Your task to perform on an android device: set default search engine in the chrome app Image 0: 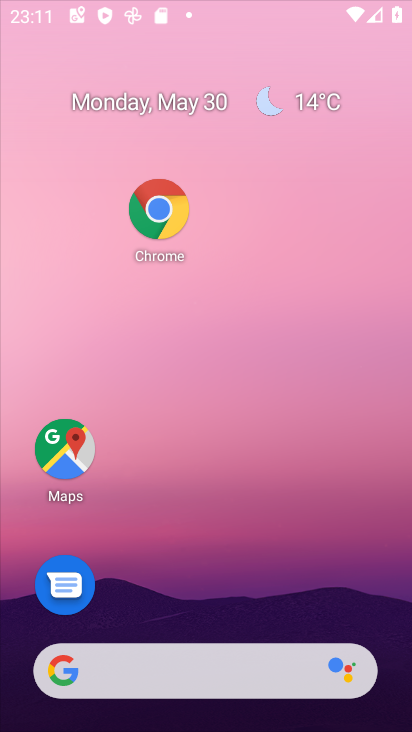
Step 0: drag from (201, 608) to (404, 96)
Your task to perform on an android device: set default search engine in the chrome app Image 1: 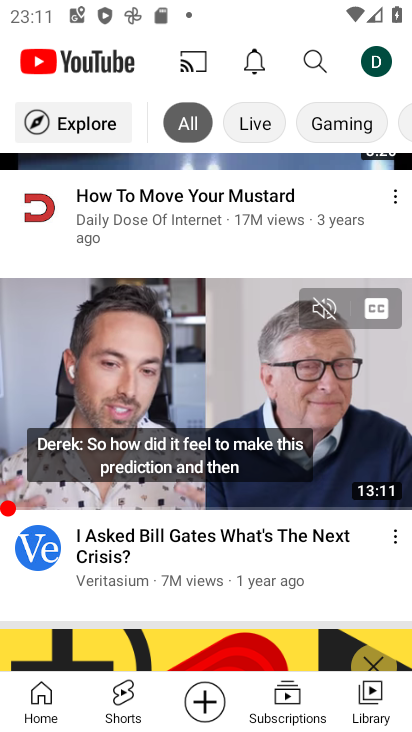
Step 1: drag from (201, 613) to (342, 191)
Your task to perform on an android device: set default search engine in the chrome app Image 2: 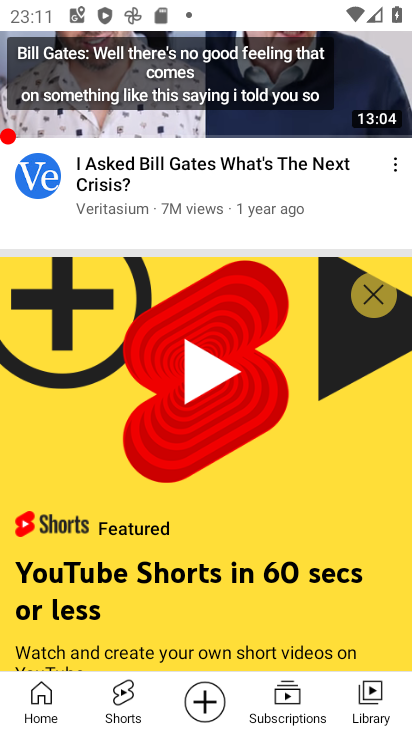
Step 2: press home button
Your task to perform on an android device: set default search engine in the chrome app Image 3: 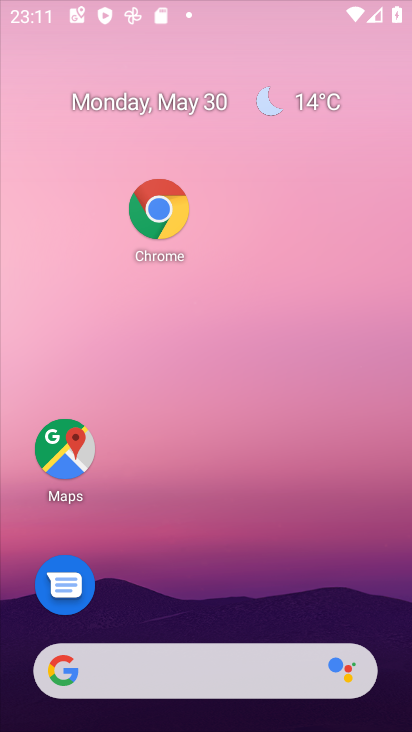
Step 3: drag from (229, 617) to (362, 121)
Your task to perform on an android device: set default search engine in the chrome app Image 4: 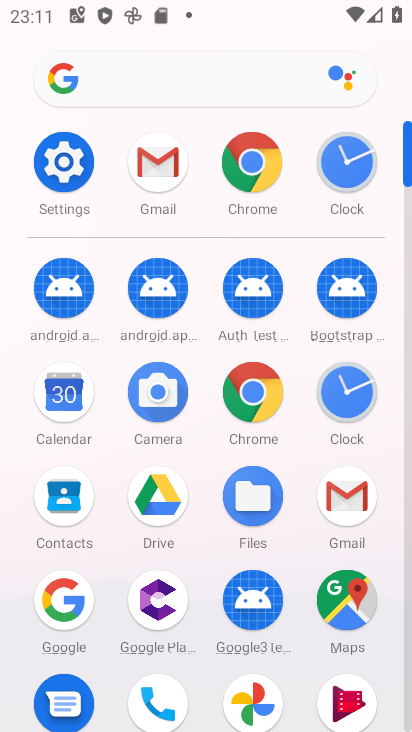
Step 4: click (248, 402)
Your task to perform on an android device: set default search engine in the chrome app Image 5: 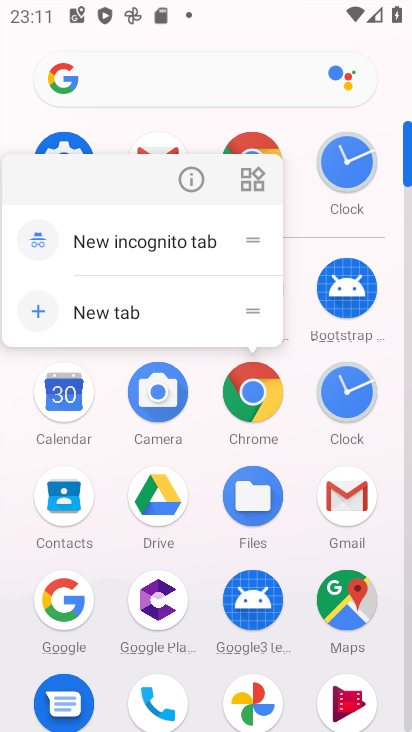
Step 5: click (191, 182)
Your task to perform on an android device: set default search engine in the chrome app Image 6: 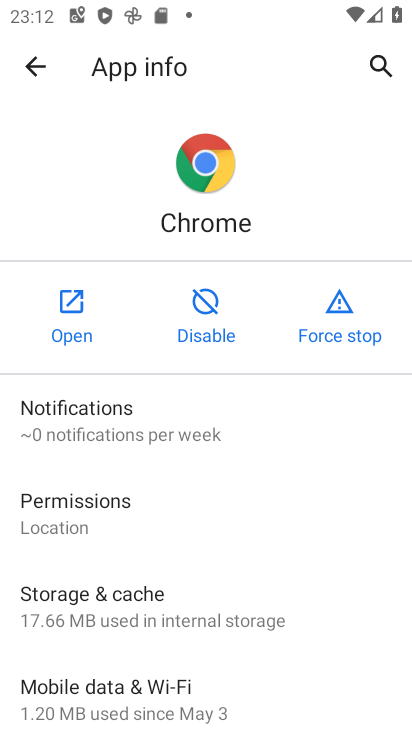
Step 6: click (82, 330)
Your task to perform on an android device: set default search engine in the chrome app Image 7: 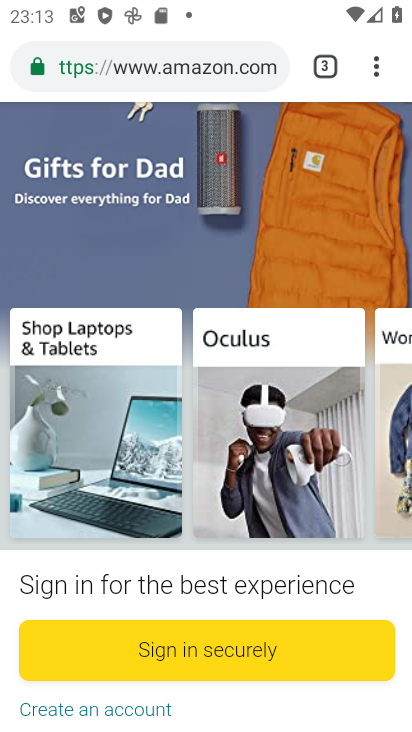
Step 7: drag from (377, 64) to (176, 588)
Your task to perform on an android device: set default search engine in the chrome app Image 8: 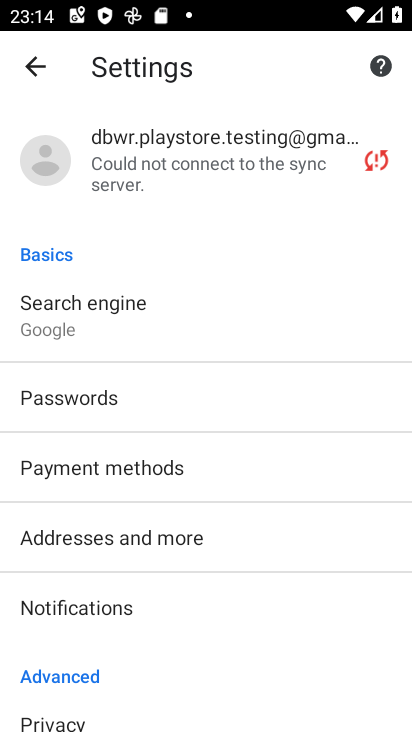
Step 8: click (126, 339)
Your task to perform on an android device: set default search engine in the chrome app Image 9: 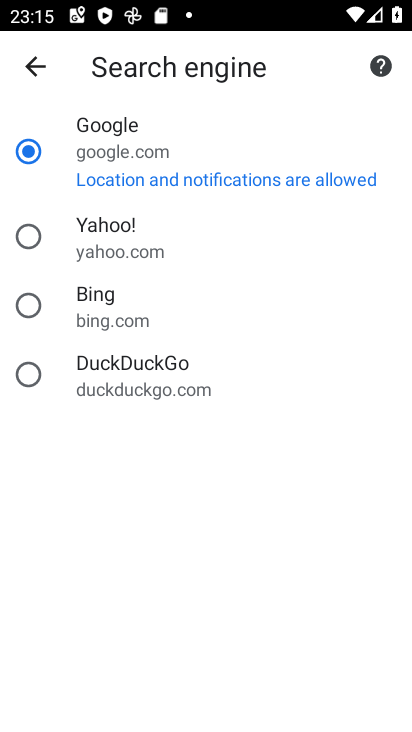
Step 9: task complete